Your task to perform on an android device: refresh tabs in the chrome app Image 0: 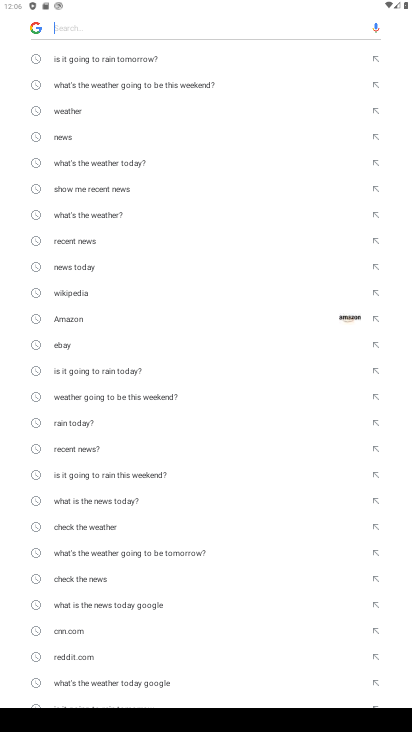
Step 0: press home button
Your task to perform on an android device: refresh tabs in the chrome app Image 1: 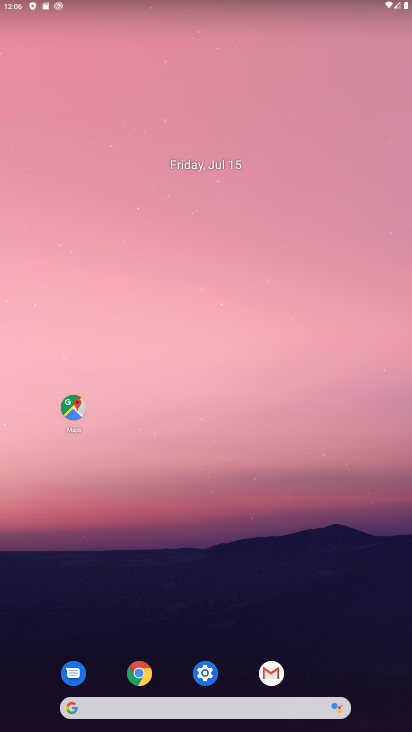
Step 1: click (153, 669)
Your task to perform on an android device: refresh tabs in the chrome app Image 2: 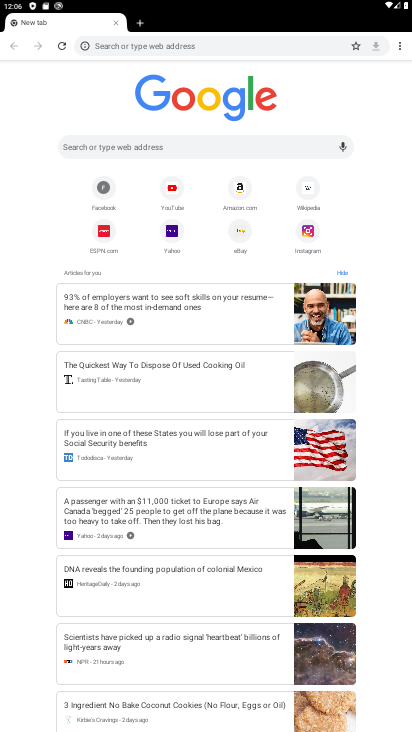
Step 2: click (404, 54)
Your task to perform on an android device: refresh tabs in the chrome app Image 3: 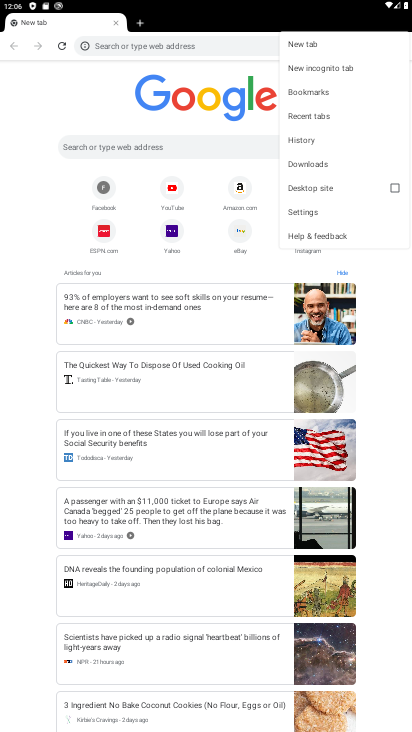
Step 3: click (298, 112)
Your task to perform on an android device: refresh tabs in the chrome app Image 4: 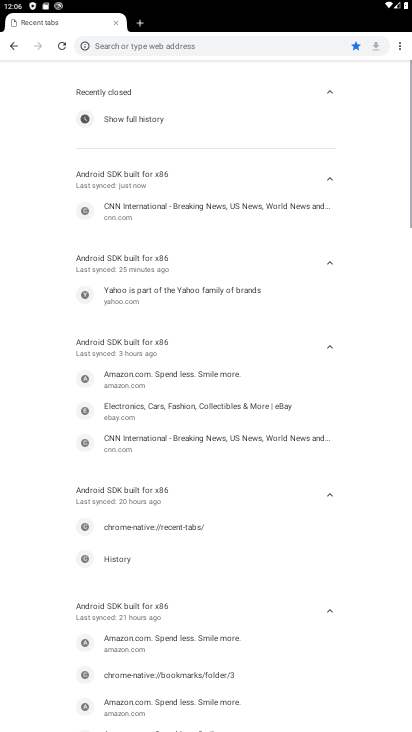
Step 4: click (399, 49)
Your task to perform on an android device: refresh tabs in the chrome app Image 5: 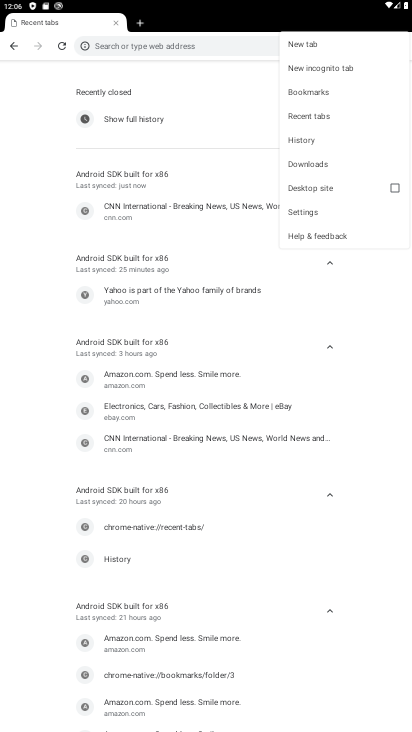
Step 5: click (222, 87)
Your task to perform on an android device: refresh tabs in the chrome app Image 6: 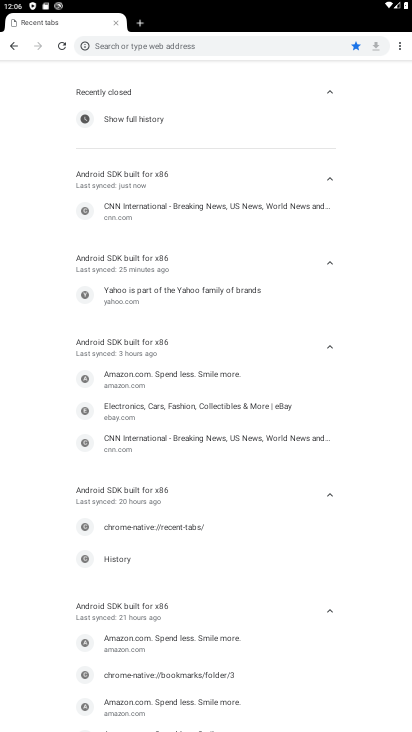
Step 6: click (61, 47)
Your task to perform on an android device: refresh tabs in the chrome app Image 7: 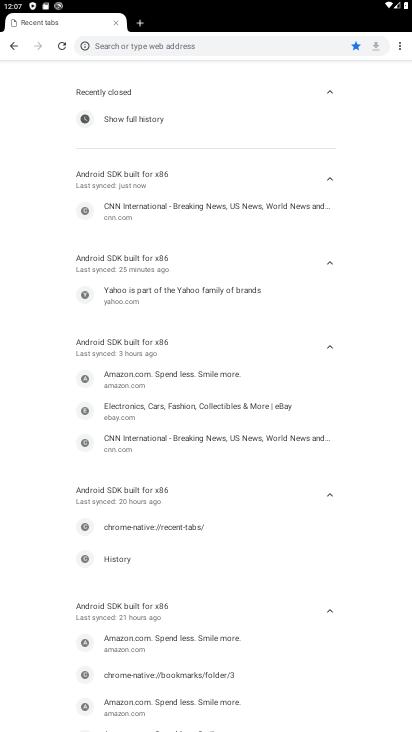
Step 7: task complete